Your task to perform on an android device: change alarm snooze length Image 0: 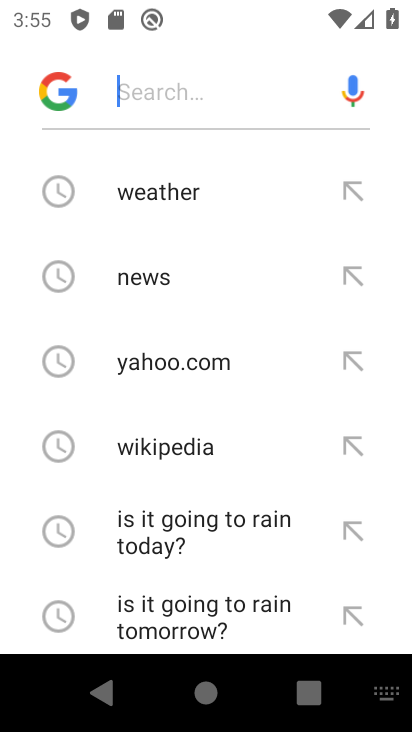
Step 0: press back button
Your task to perform on an android device: change alarm snooze length Image 1: 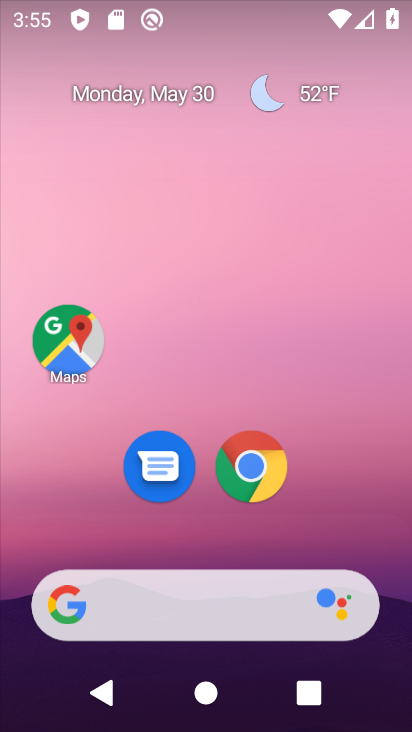
Step 1: drag from (148, 722) to (262, 119)
Your task to perform on an android device: change alarm snooze length Image 2: 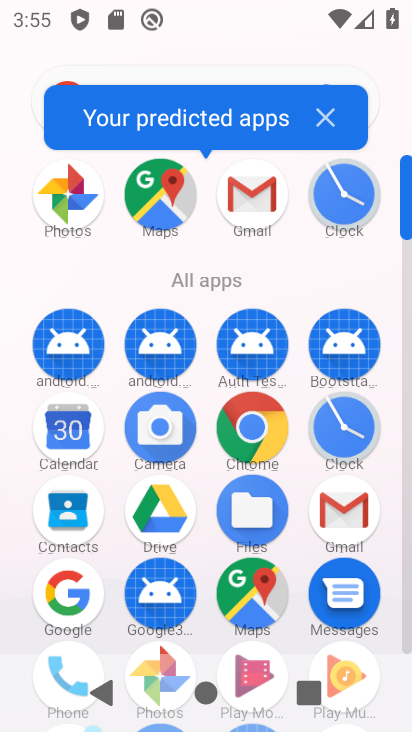
Step 2: click (347, 196)
Your task to perform on an android device: change alarm snooze length Image 3: 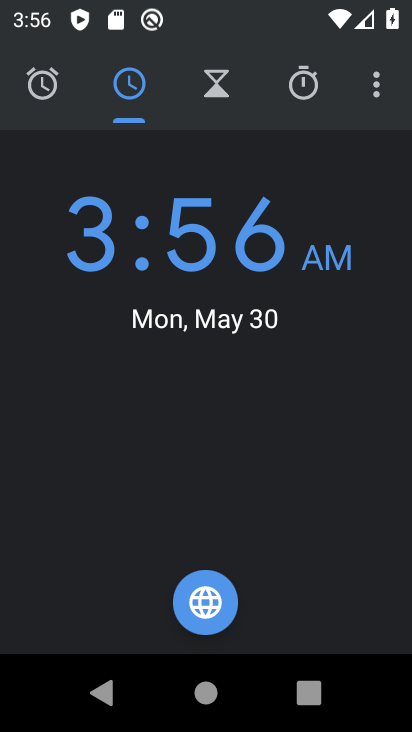
Step 3: click (378, 87)
Your task to perform on an android device: change alarm snooze length Image 4: 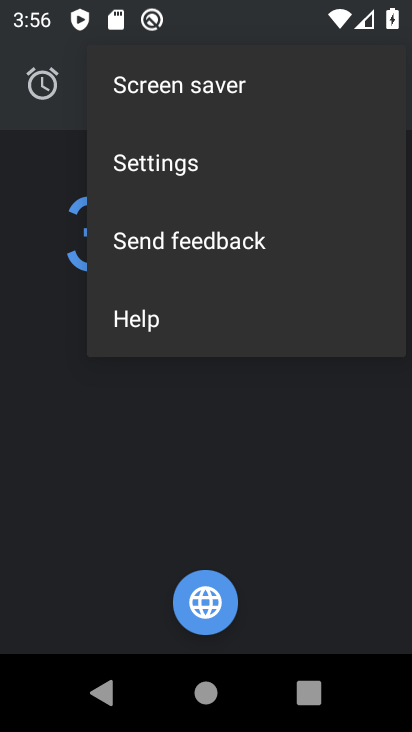
Step 4: click (177, 166)
Your task to perform on an android device: change alarm snooze length Image 5: 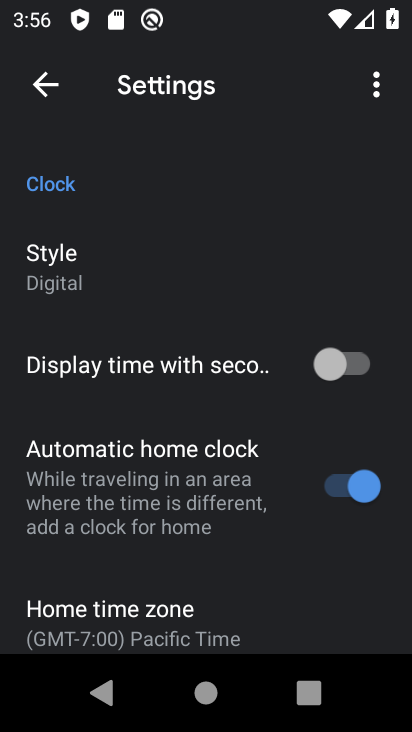
Step 5: drag from (268, 567) to (275, 193)
Your task to perform on an android device: change alarm snooze length Image 6: 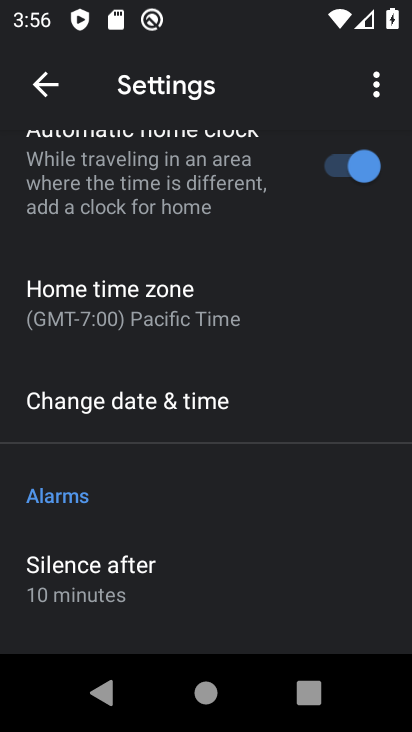
Step 6: drag from (279, 571) to (305, 240)
Your task to perform on an android device: change alarm snooze length Image 7: 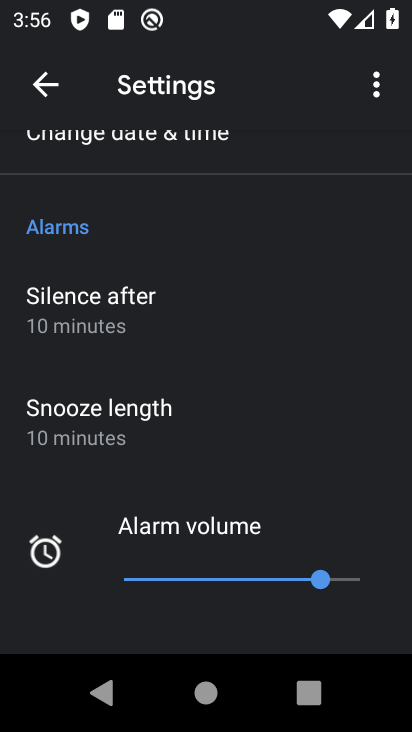
Step 7: click (129, 423)
Your task to perform on an android device: change alarm snooze length Image 8: 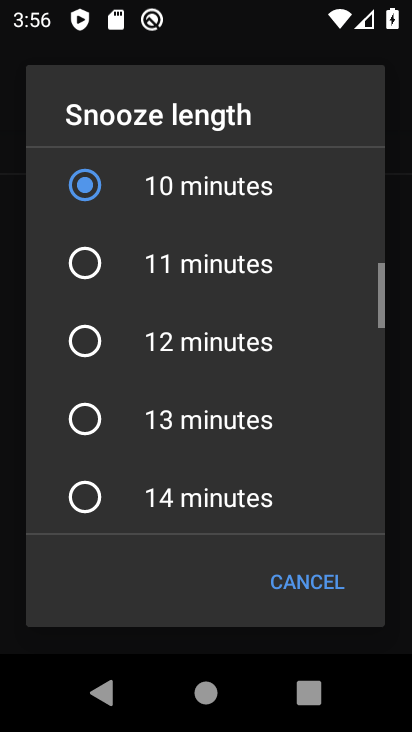
Step 8: click (139, 342)
Your task to perform on an android device: change alarm snooze length Image 9: 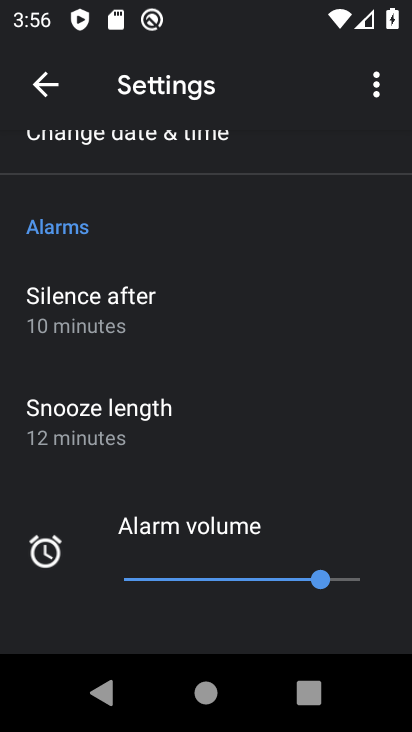
Step 9: task complete